Your task to perform on an android device: change the clock style Image 0: 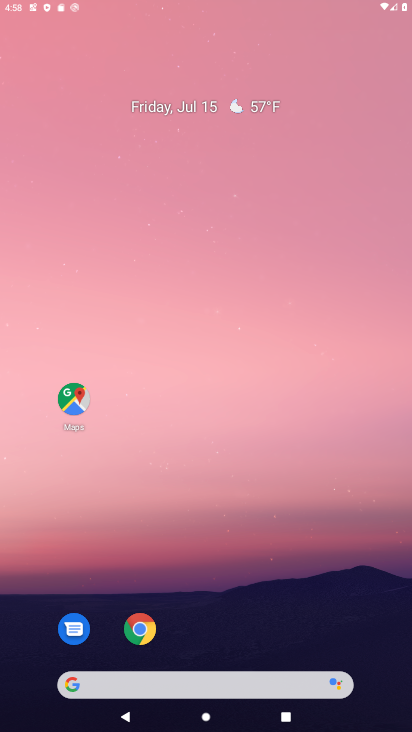
Step 0: press home button
Your task to perform on an android device: change the clock style Image 1: 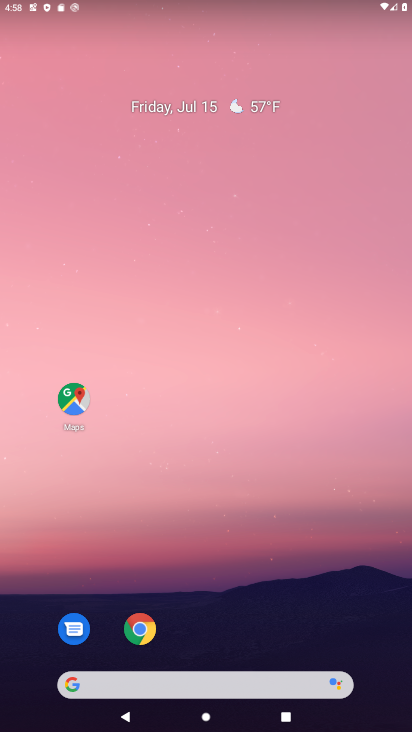
Step 1: drag from (309, 628) to (342, 45)
Your task to perform on an android device: change the clock style Image 2: 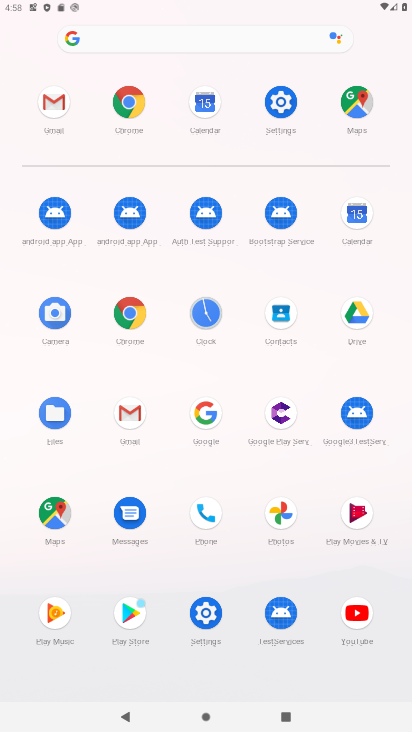
Step 2: click (205, 315)
Your task to perform on an android device: change the clock style Image 3: 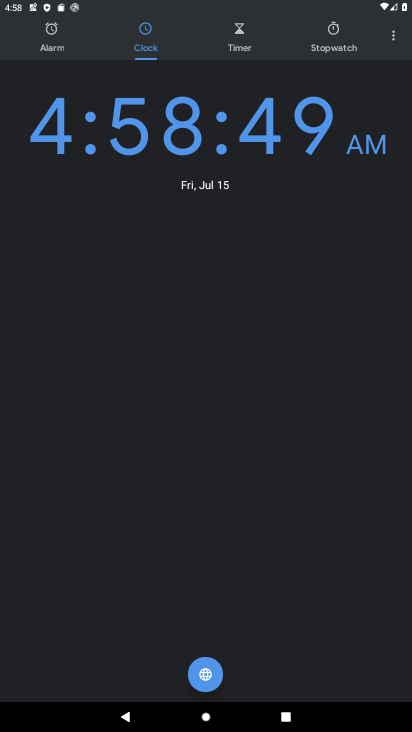
Step 3: click (391, 41)
Your task to perform on an android device: change the clock style Image 4: 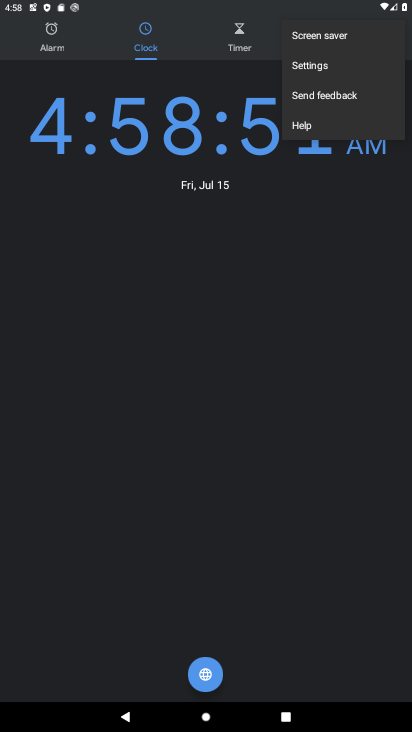
Step 4: click (311, 66)
Your task to perform on an android device: change the clock style Image 5: 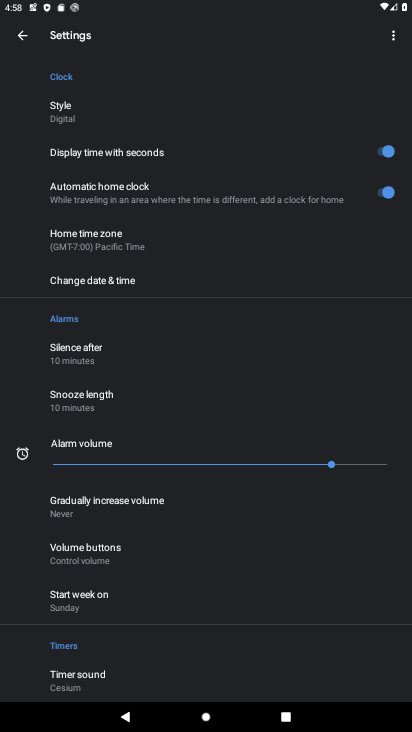
Step 5: click (57, 116)
Your task to perform on an android device: change the clock style Image 6: 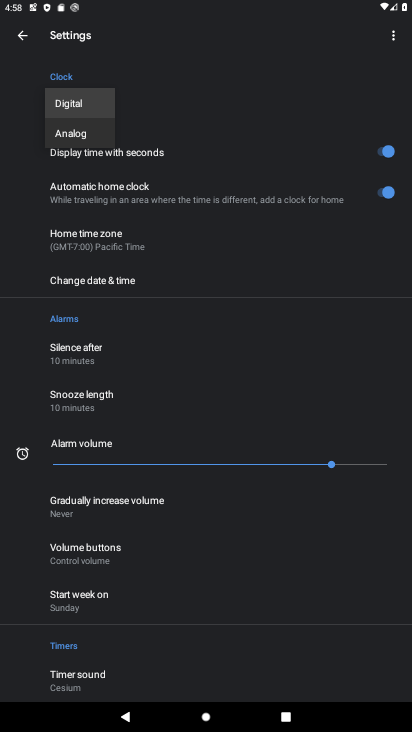
Step 6: click (70, 137)
Your task to perform on an android device: change the clock style Image 7: 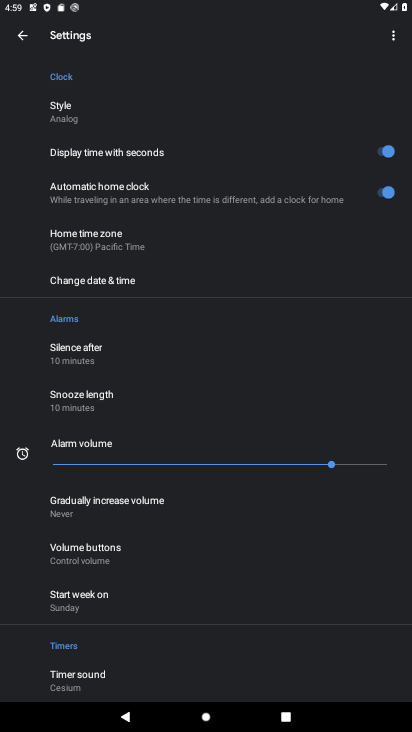
Step 7: task complete